Your task to perform on an android device: toggle pop-ups in chrome Image 0: 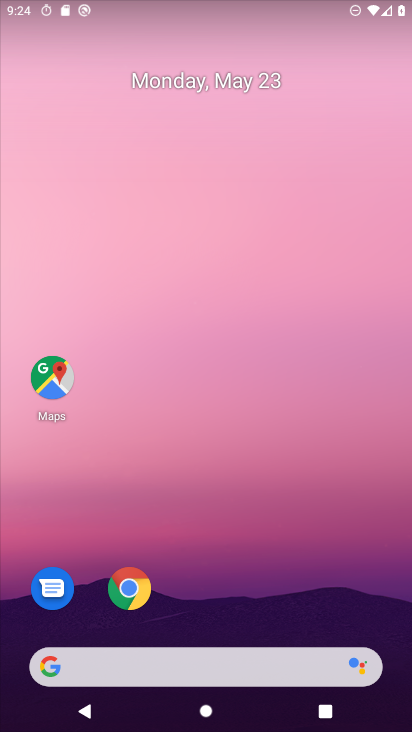
Step 0: click (132, 587)
Your task to perform on an android device: toggle pop-ups in chrome Image 1: 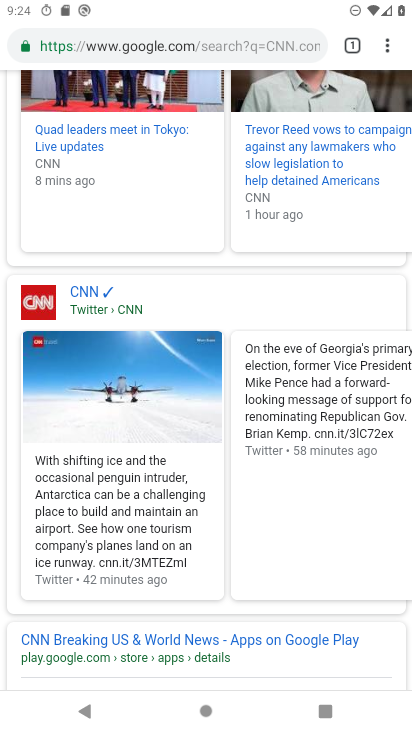
Step 1: click (390, 41)
Your task to perform on an android device: toggle pop-ups in chrome Image 2: 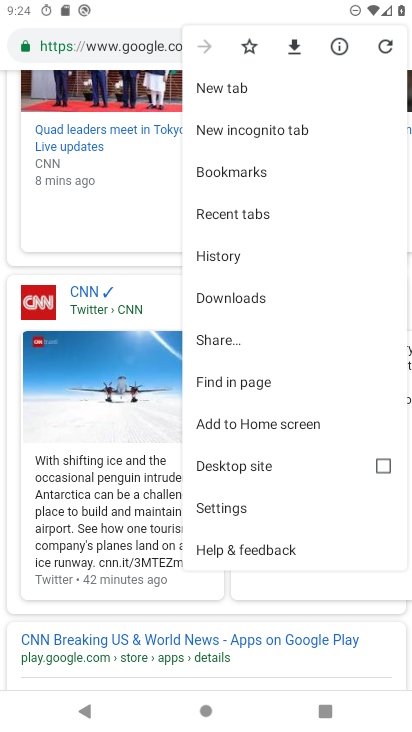
Step 2: click (214, 514)
Your task to perform on an android device: toggle pop-ups in chrome Image 3: 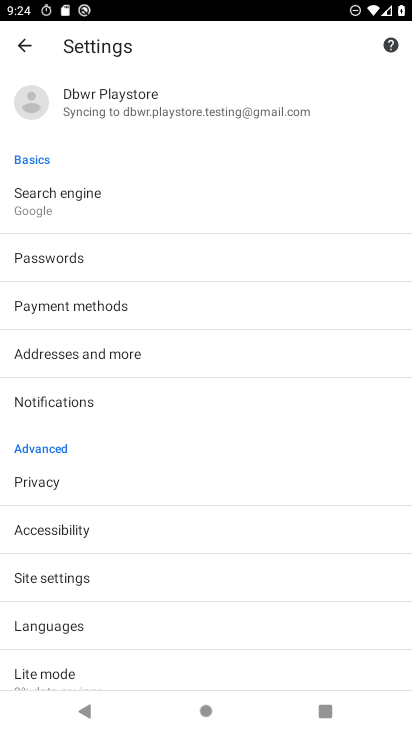
Step 3: click (50, 570)
Your task to perform on an android device: toggle pop-ups in chrome Image 4: 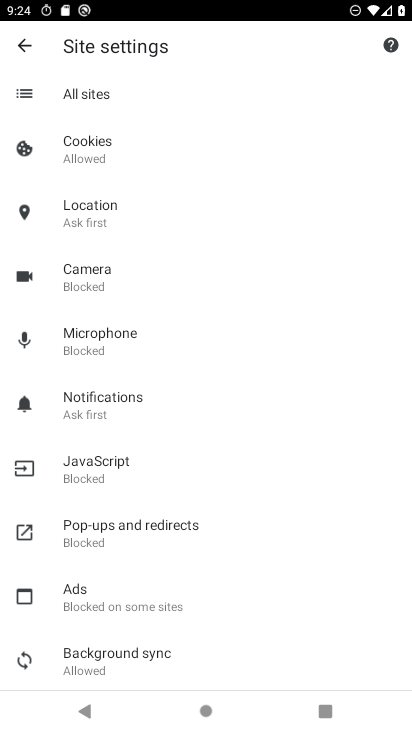
Step 4: click (101, 521)
Your task to perform on an android device: toggle pop-ups in chrome Image 5: 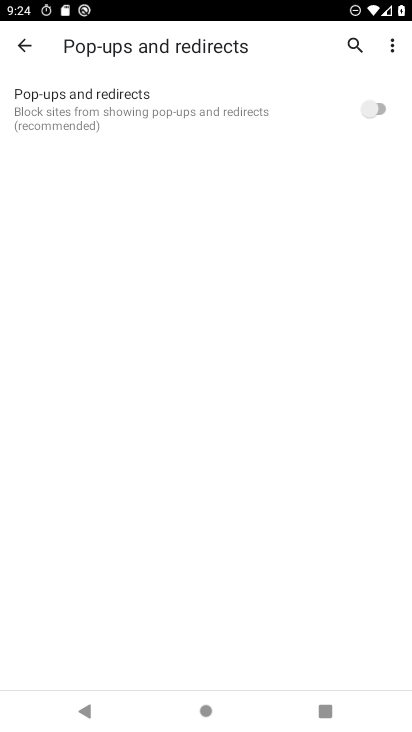
Step 5: click (370, 108)
Your task to perform on an android device: toggle pop-ups in chrome Image 6: 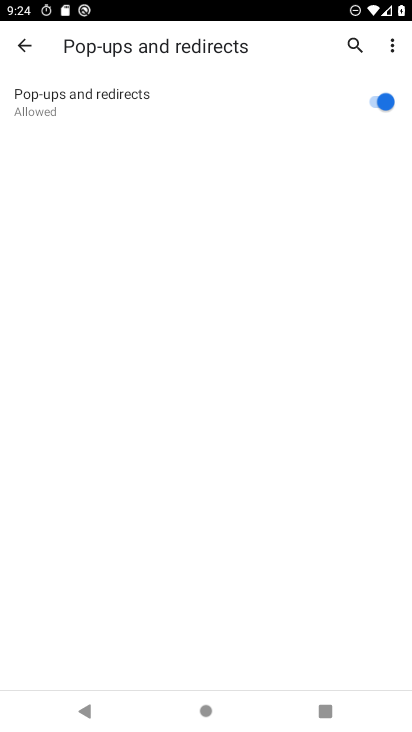
Step 6: task complete